Your task to perform on an android device: turn on showing notifications on the lock screen Image 0: 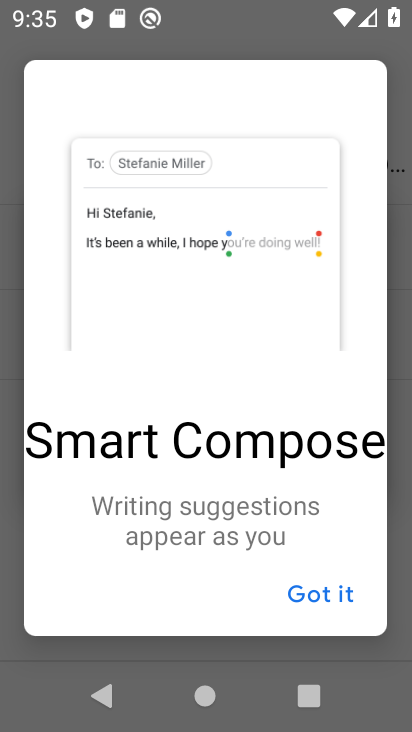
Step 0: press home button
Your task to perform on an android device: turn on showing notifications on the lock screen Image 1: 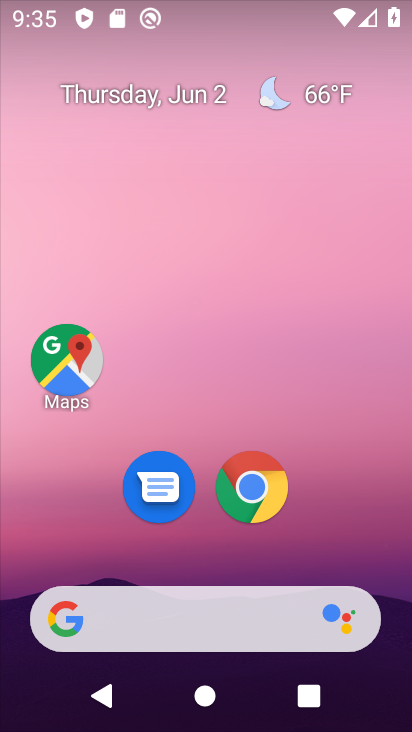
Step 1: drag from (229, 724) to (204, 147)
Your task to perform on an android device: turn on showing notifications on the lock screen Image 2: 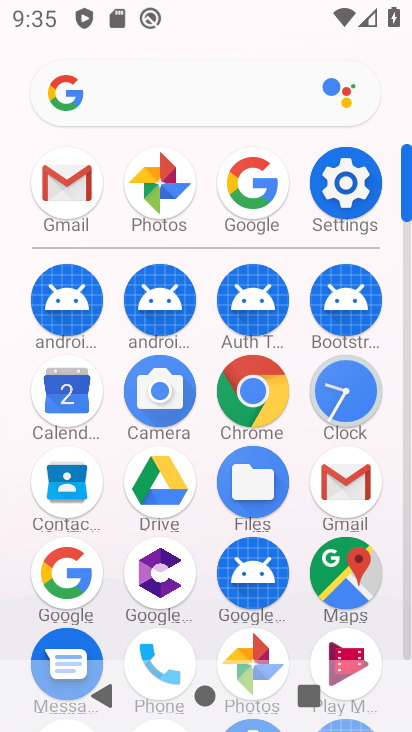
Step 2: click (345, 189)
Your task to perform on an android device: turn on showing notifications on the lock screen Image 3: 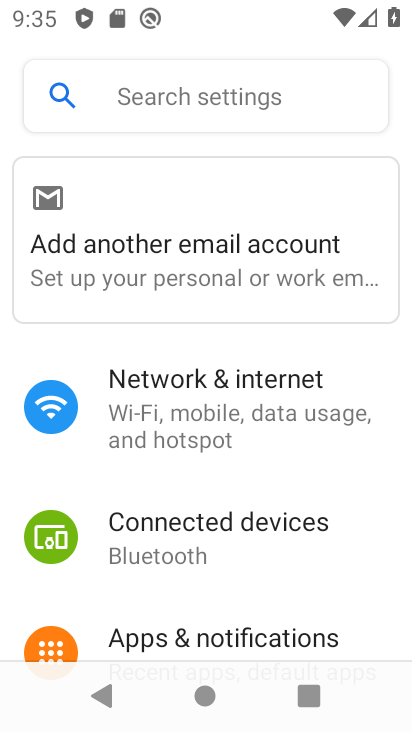
Step 3: click (208, 646)
Your task to perform on an android device: turn on showing notifications on the lock screen Image 4: 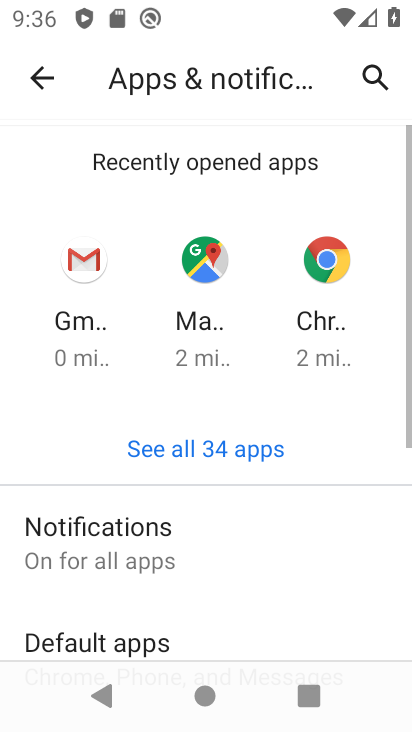
Step 4: click (125, 542)
Your task to perform on an android device: turn on showing notifications on the lock screen Image 5: 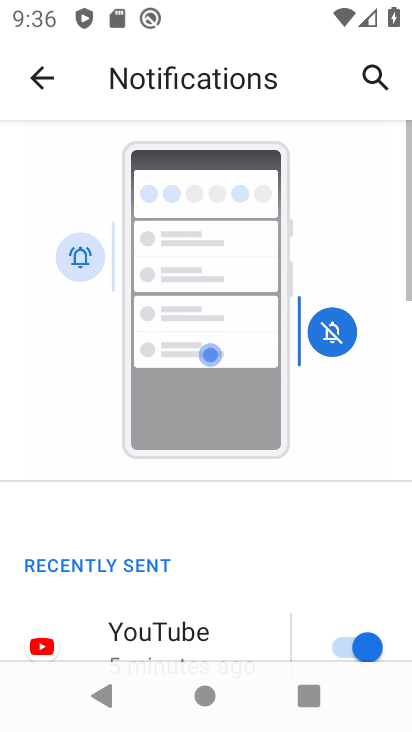
Step 5: drag from (239, 644) to (235, 276)
Your task to perform on an android device: turn on showing notifications on the lock screen Image 6: 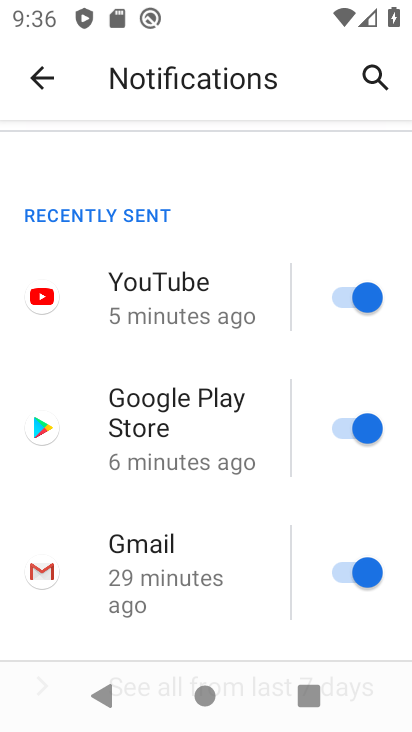
Step 6: drag from (246, 638) to (233, 376)
Your task to perform on an android device: turn on showing notifications on the lock screen Image 7: 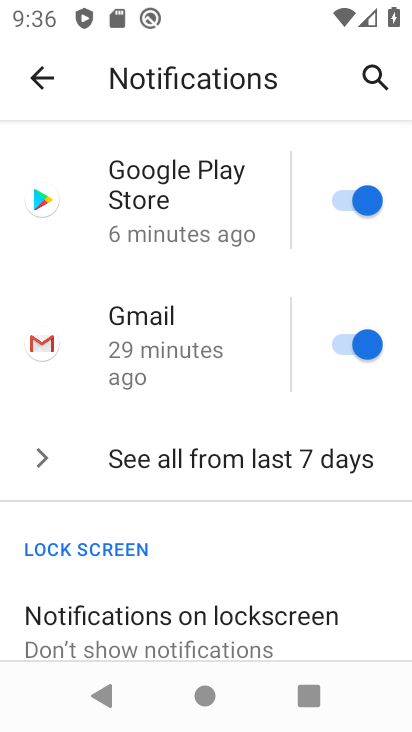
Step 7: drag from (214, 631) to (216, 263)
Your task to perform on an android device: turn on showing notifications on the lock screen Image 8: 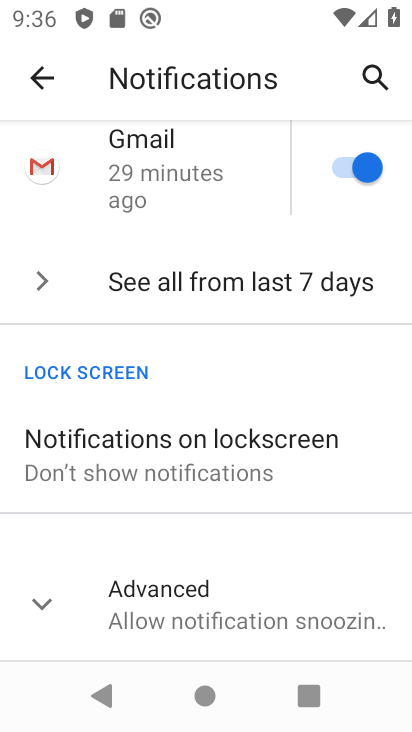
Step 8: click (166, 467)
Your task to perform on an android device: turn on showing notifications on the lock screen Image 9: 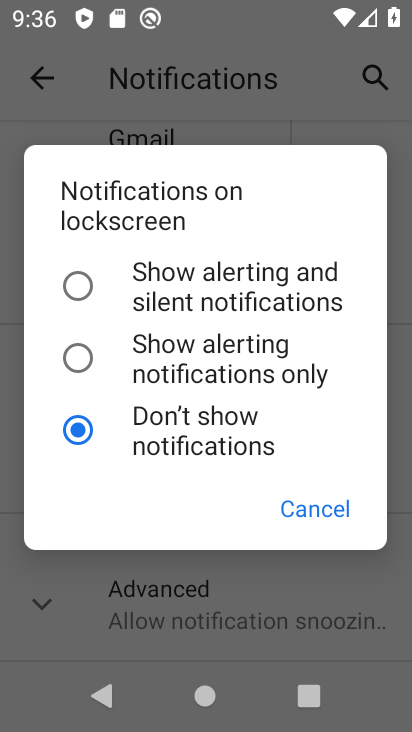
Step 9: click (67, 285)
Your task to perform on an android device: turn on showing notifications on the lock screen Image 10: 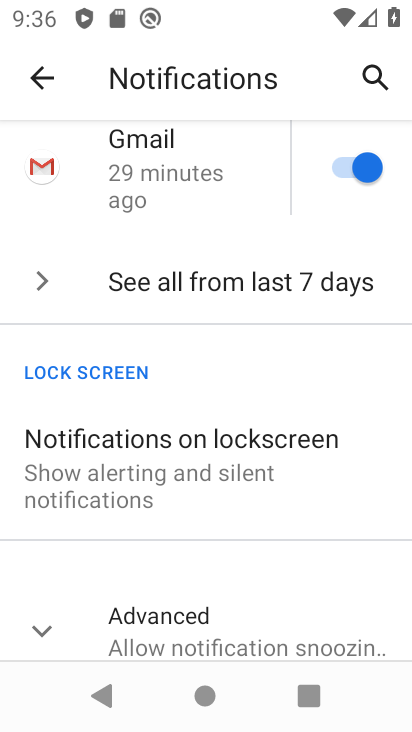
Step 10: task complete